Your task to perform on an android device: turn off wifi Image 0: 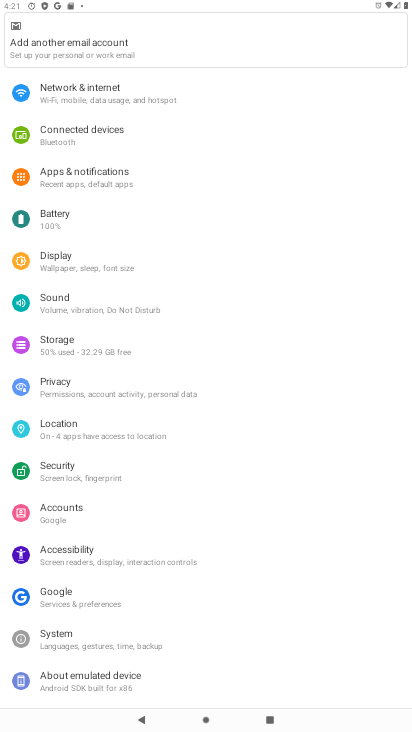
Step 0: click (234, 95)
Your task to perform on an android device: turn off wifi Image 1: 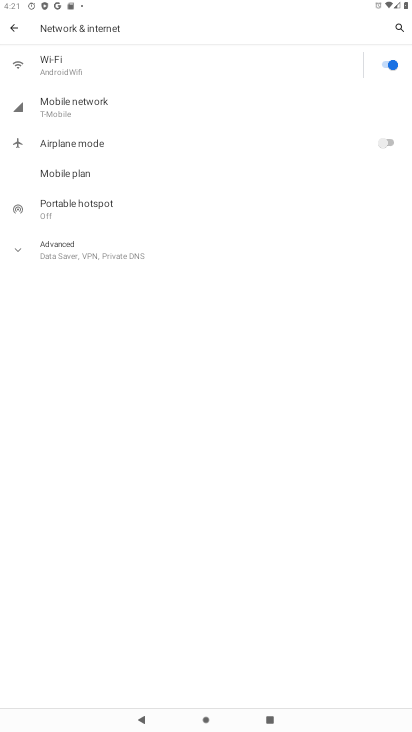
Step 1: click (389, 65)
Your task to perform on an android device: turn off wifi Image 2: 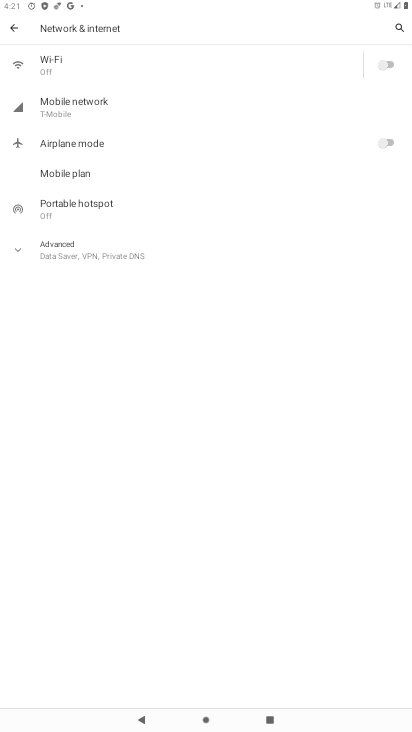
Step 2: task complete